Your task to perform on an android device: When is my next meeting? Image 0: 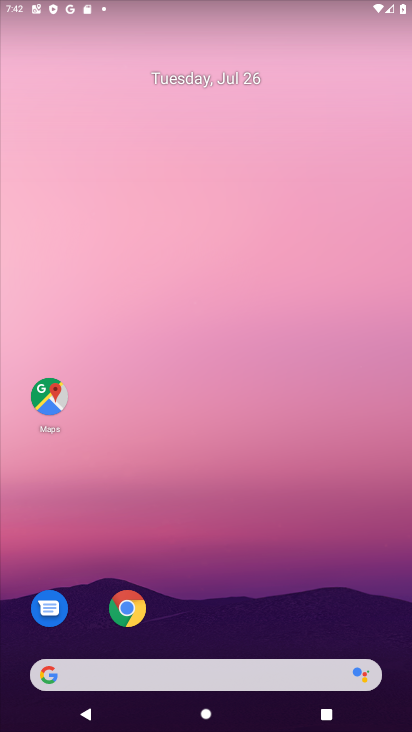
Step 0: drag from (250, 679) to (198, 249)
Your task to perform on an android device: When is my next meeting? Image 1: 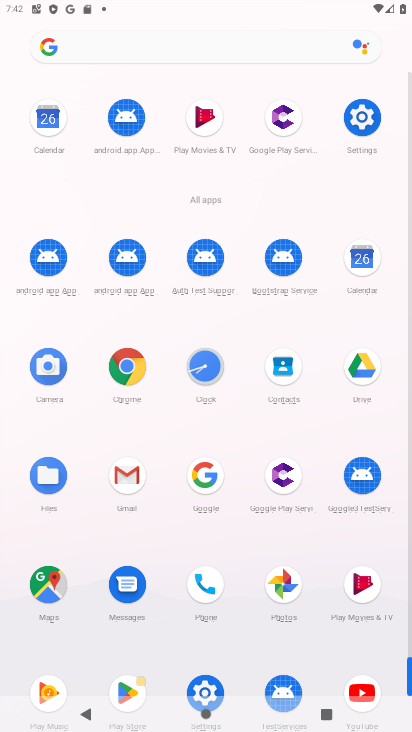
Step 1: click (367, 265)
Your task to perform on an android device: When is my next meeting? Image 2: 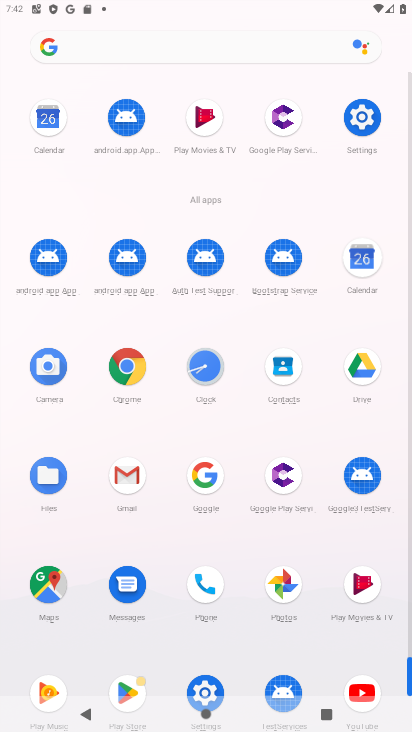
Step 2: click (367, 265)
Your task to perform on an android device: When is my next meeting? Image 3: 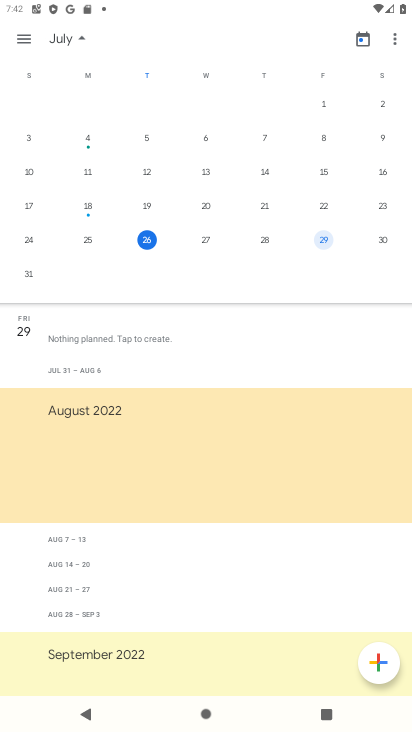
Step 3: task complete